Your task to perform on an android device: Open Google Maps Image 0: 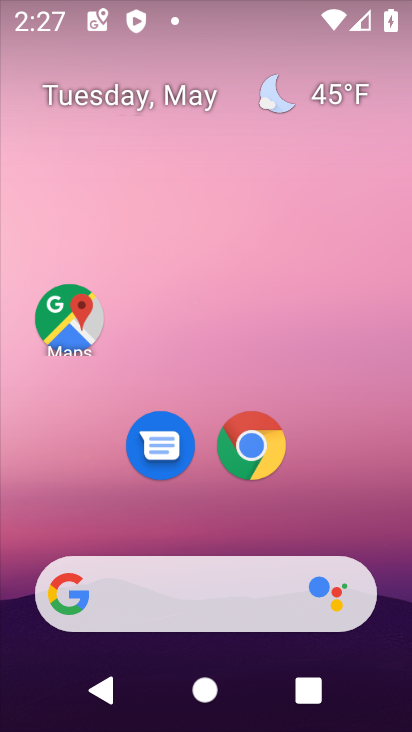
Step 0: click (65, 339)
Your task to perform on an android device: Open Google Maps Image 1: 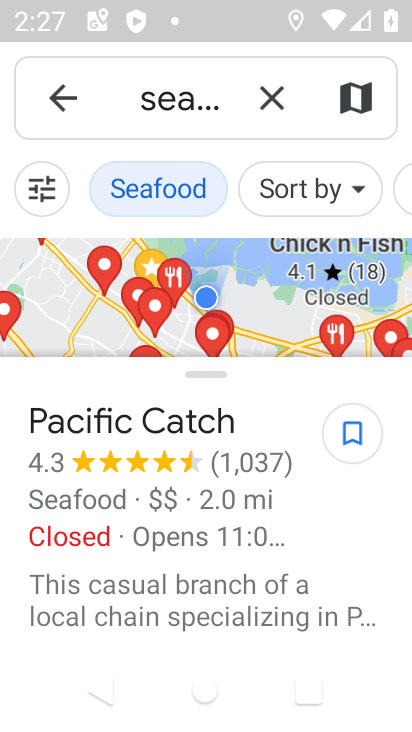
Step 1: task complete